Your task to perform on an android device: Check the news Image 0: 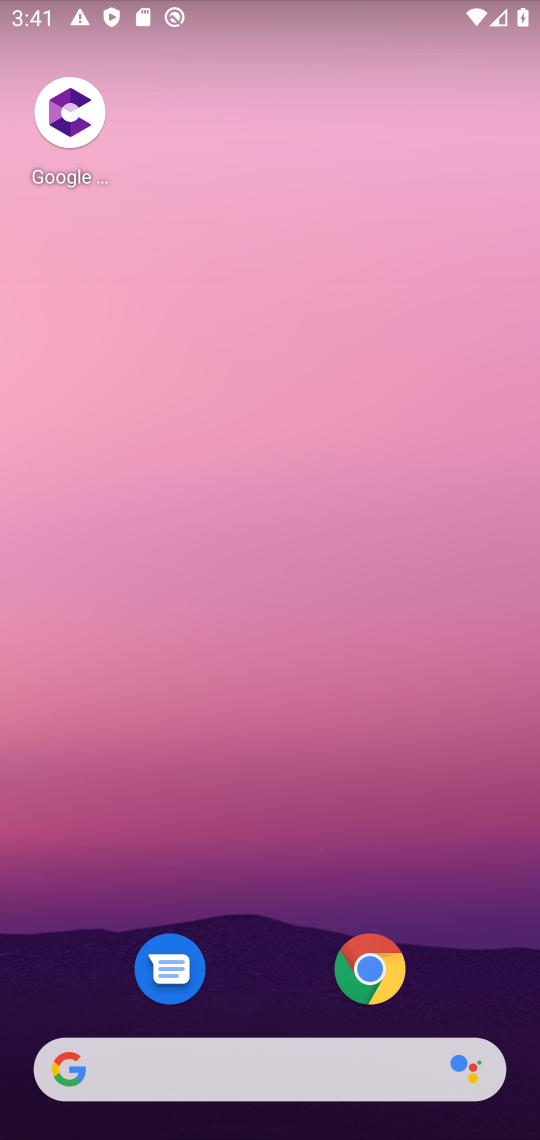
Step 0: press home button
Your task to perform on an android device: Check the news Image 1: 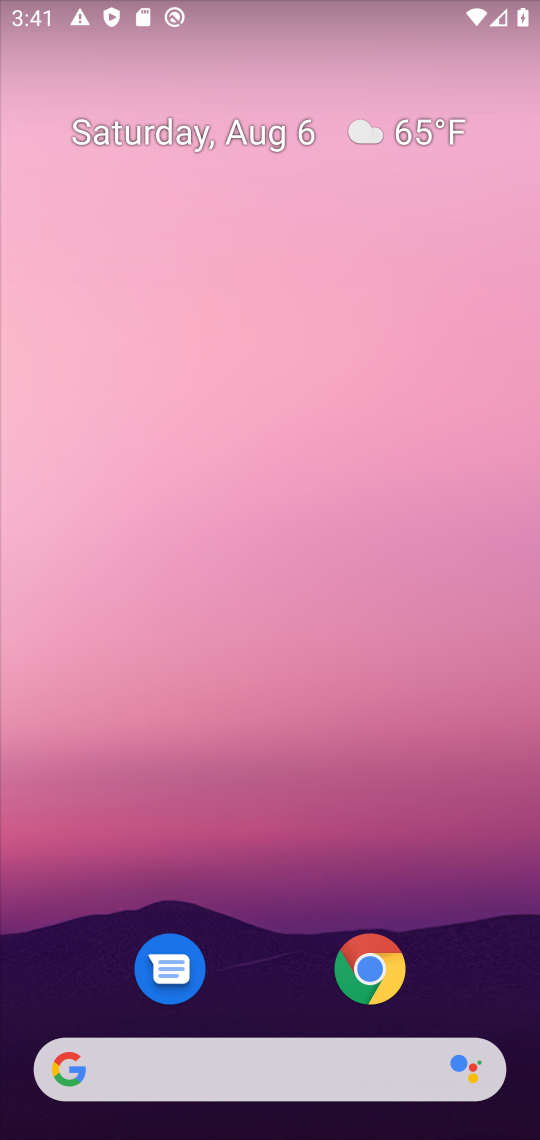
Step 1: drag from (299, 582) to (311, 250)
Your task to perform on an android device: Check the news Image 2: 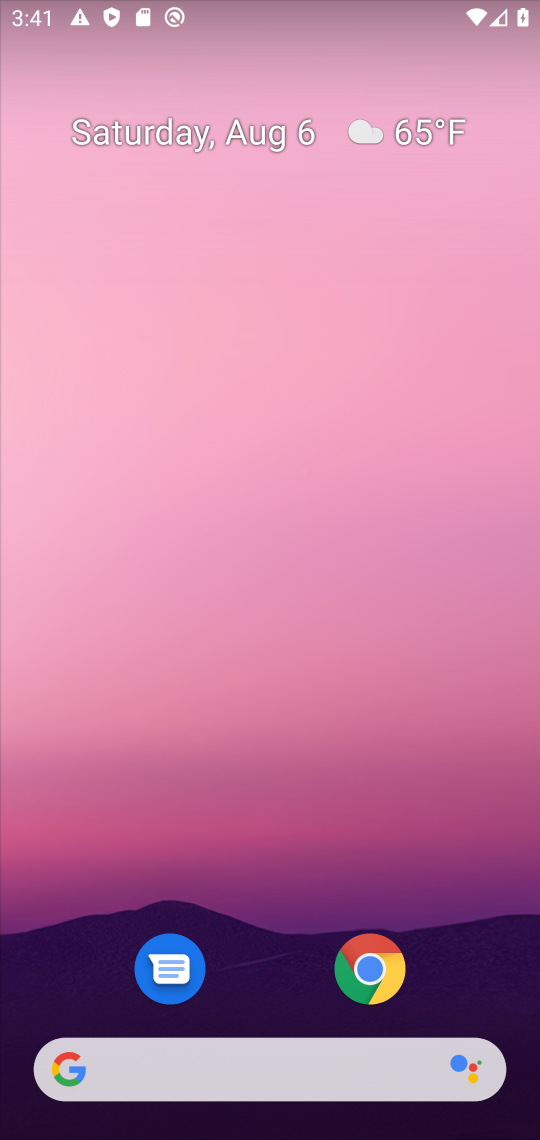
Step 2: drag from (282, 924) to (6, 206)
Your task to perform on an android device: Check the news Image 3: 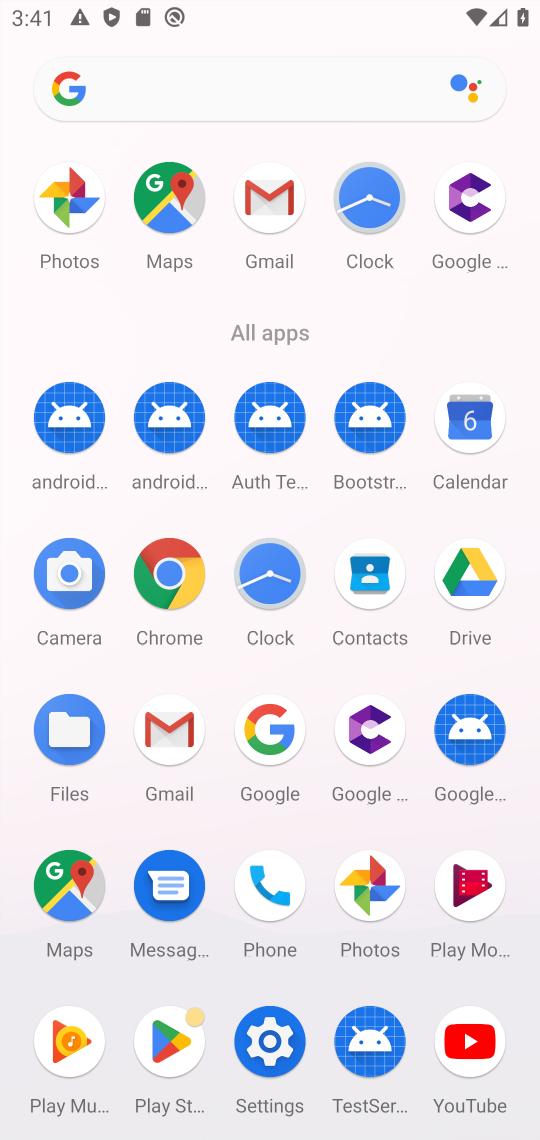
Step 3: click (69, 81)
Your task to perform on an android device: Check the news Image 4: 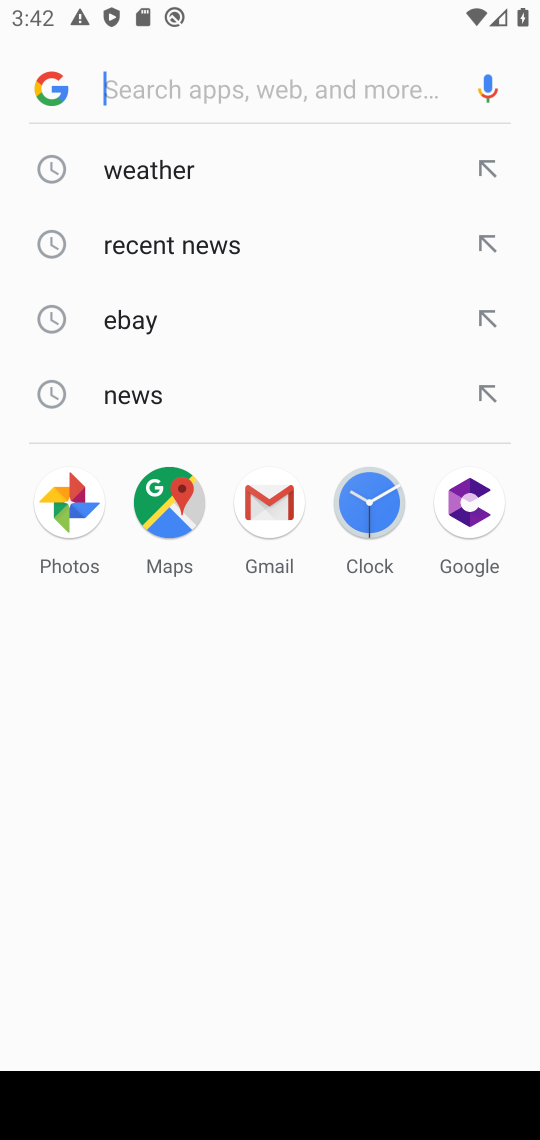
Step 4: type " news"
Your task to perform on an android device: Check the news Image 5: 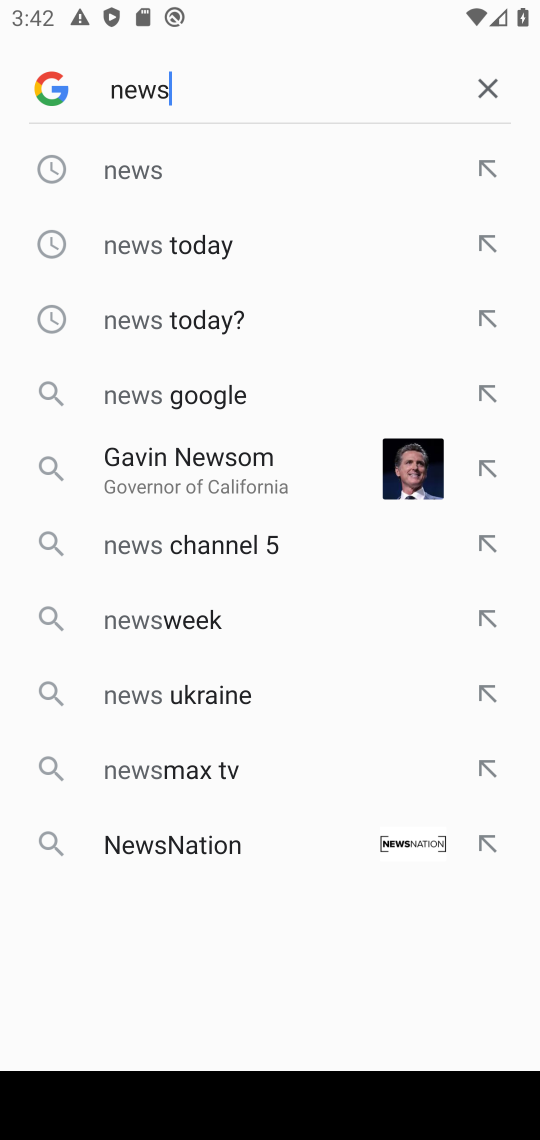
Step 5: press enter
Your task to perform on an android device: Check the news Image 6: 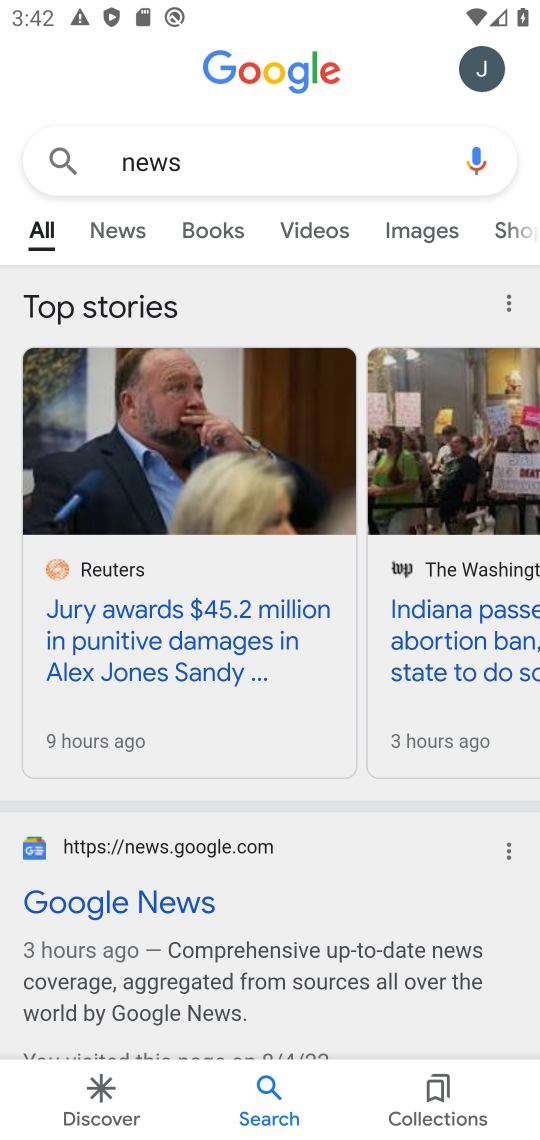
Step 6: task complete